Your task to perform on an android device: Go to Yahoo.com Image 0: 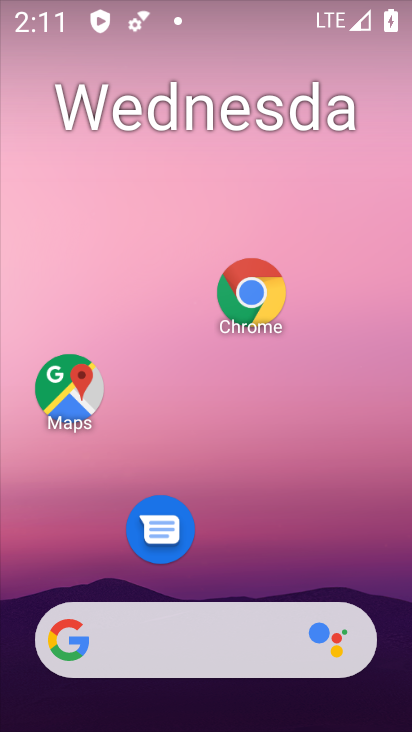
Step 0: click (275, 320)
Your task to perform on an android device: Go to Yahoo.com Image 1: 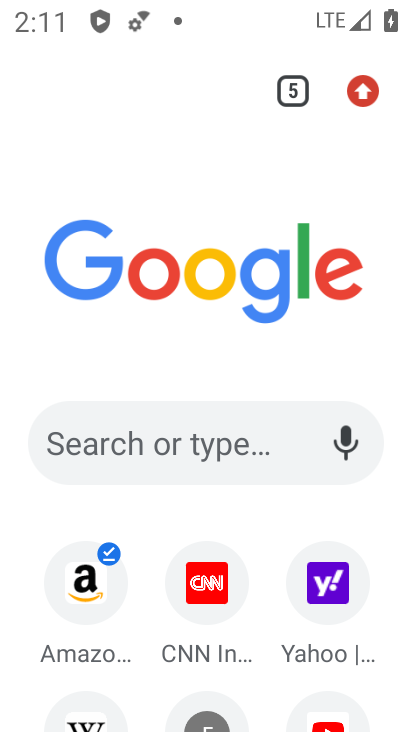
Step 1: drag from (112, 595) to (104, 355)
Your task to perform on an android device: Go to Yahoo.com Image 2: 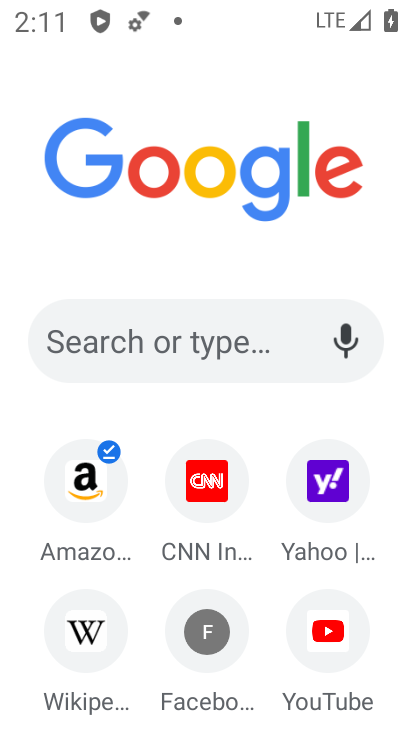
Step 2: click (309, 503)
Your task to perform on an android device: Go to Yahoo.com Image 3: 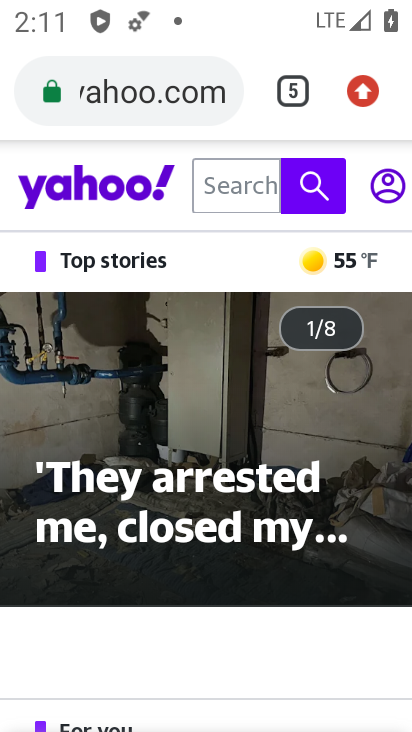
Step 3: task complete